Your task to perform on an android device: Search for Italian restaurants on Maps Image 0: 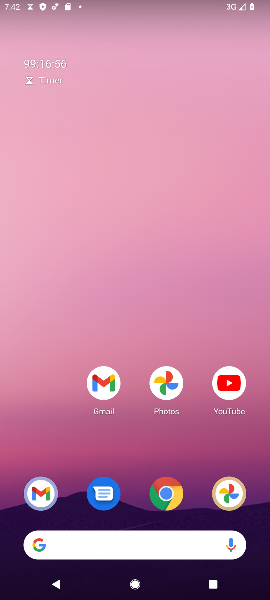
Step 0: drag from (124, 506) to (156, 193)
Your task to perform on an android device: Search for Italian restaurants on Maps Image 1: 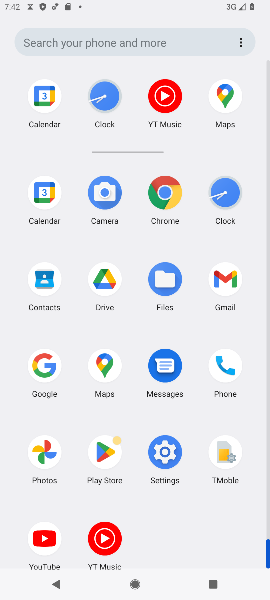
Step 1: click (105, 361)
Your task to perform on an android device: Search for Italian restaurants on Maps Image 2: 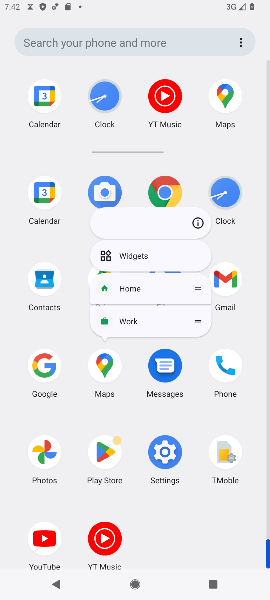
Step 2: click (105, 361)
Your task to perform on an android device: Search for Italian restaurants on Maps Image 3: 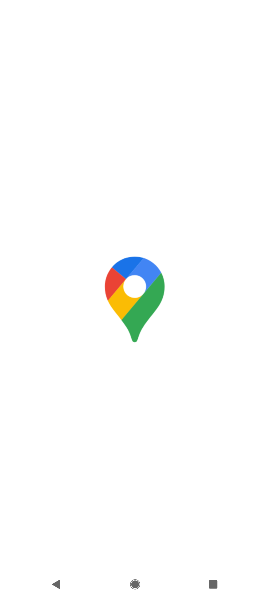
Step 3: task complete